Your task to perform on an android device: toggle improve location accuracy Image 0: 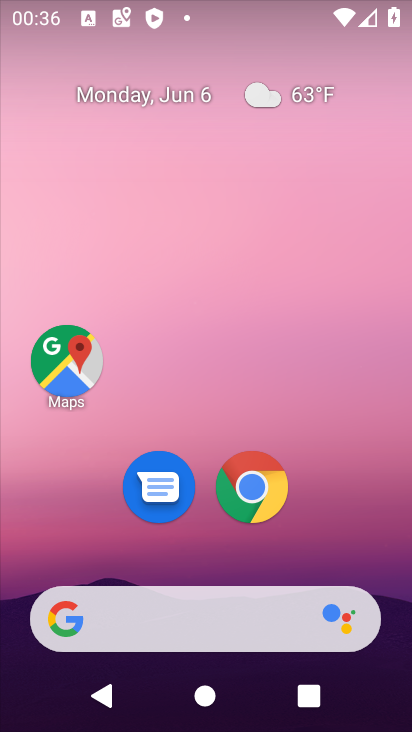
Step 0: drag from (400, 630) to (331, 86)
Your task to perform on an android device: toggle improve location accuracy Image 1: 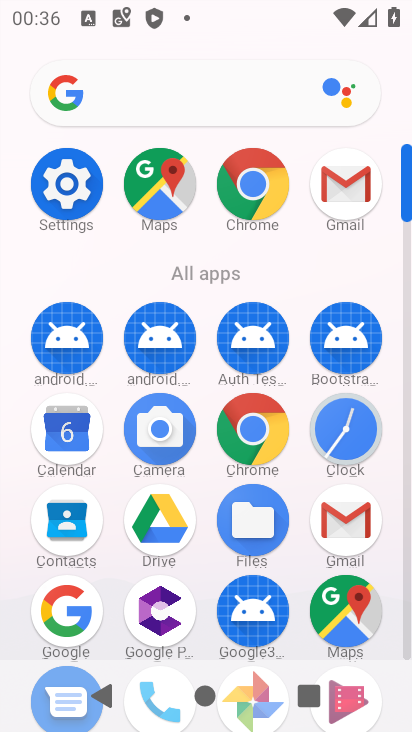
Step 1: click (407, 631)
Your task to perform on an android device: toggle improve location accuracy Image 2: 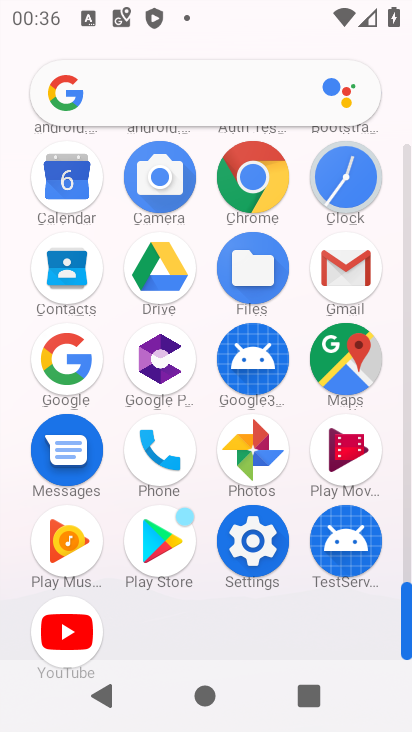
Step 2: click (253, 542)
Your task to perform on an android device: toggle improve location accuracy Image 3: 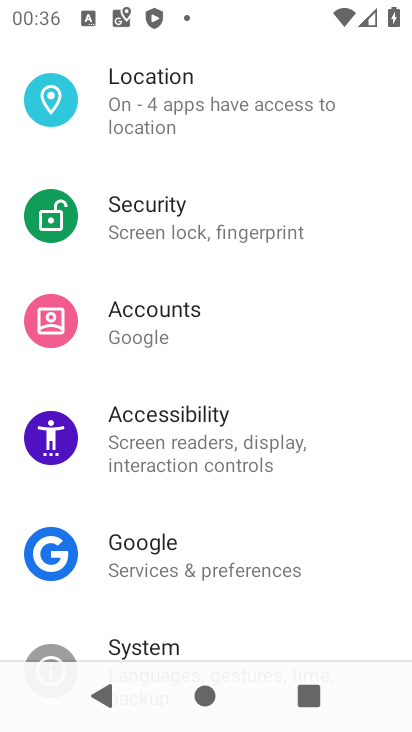
Step 3: drag from (356, 101) to (334, 401)
Your task to perform on an android device: toggle improve location accuracy Image 4: 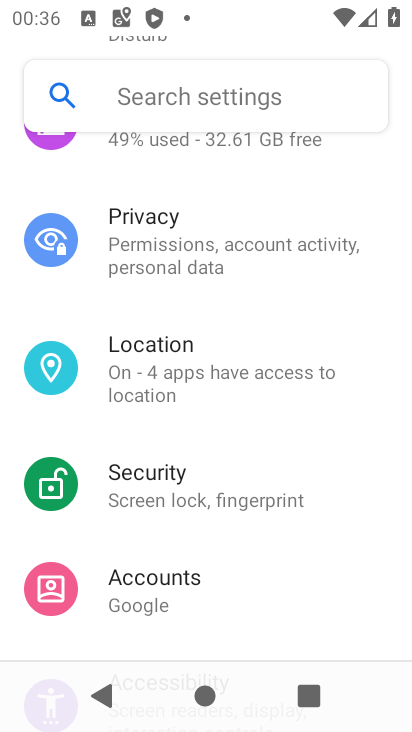
Step 4: click (161, 367)
Your task to perform on an android device: toggle improve location accuracy Image 5: 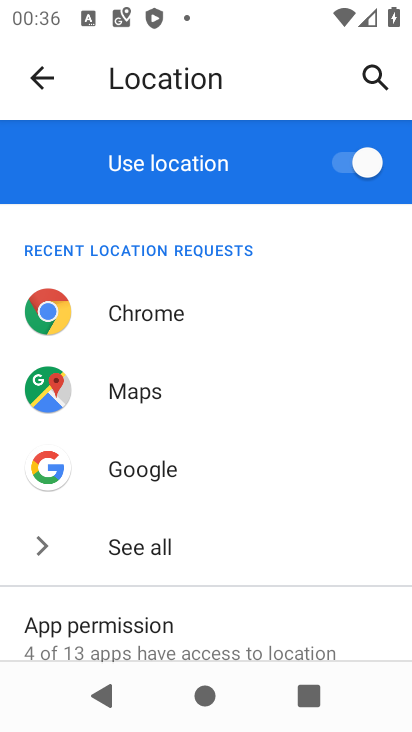
Step 5: drag from (267, 602) to (275, 203)
Your task to perform on an android device: toggle improve location accuracy Image 6: 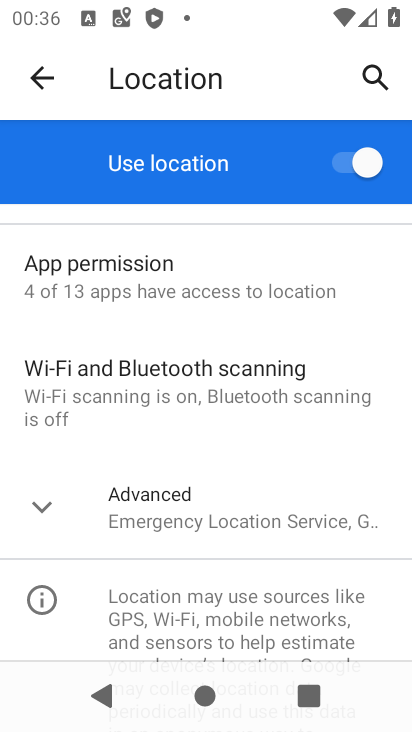
Step 6: click (41, 512)
Your task to perform on an android device: toggle improve location accuracy Image 7: 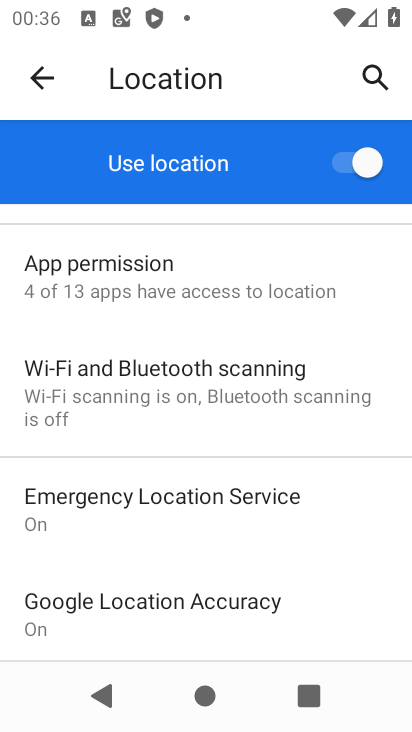
Step 7: drag from (282, 599) to (279, 226)
Your task to perform on an android device: toggle improve location accuracy Image 8: 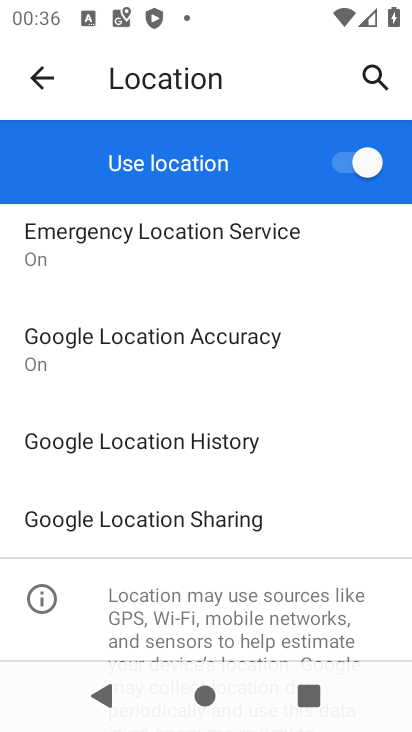
Step 8: click (66, 344)
Your task to perform on an android device: toggle improve location accuracy Image 9: 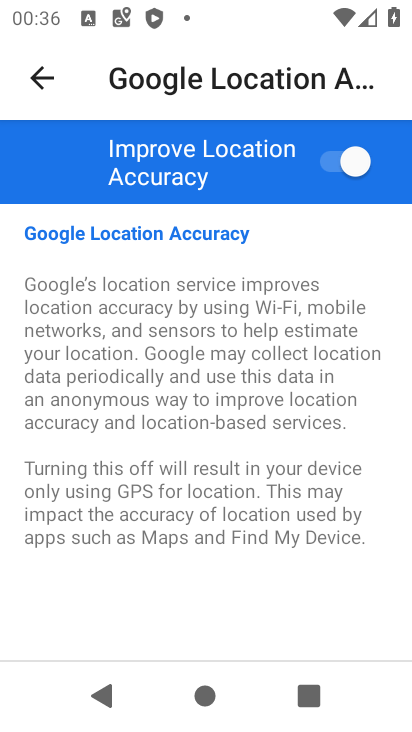
Step 9: click (322, 158)
Your task to perform on an android device: toggle improve location accuracy Image 10: 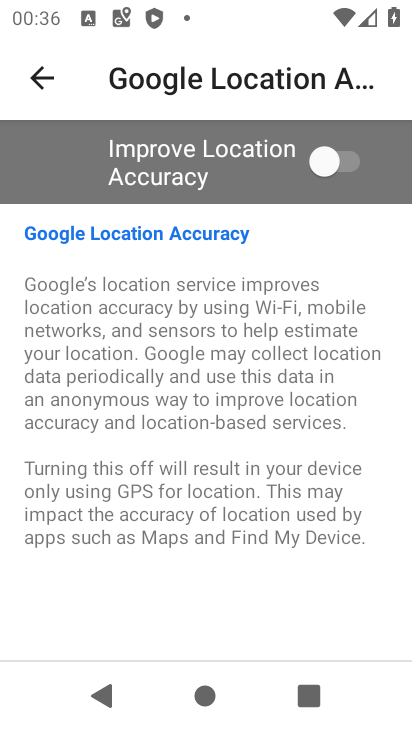
Step 10: task complete